Your task to perform on an android device: empty trash in the gmail app Image 0: 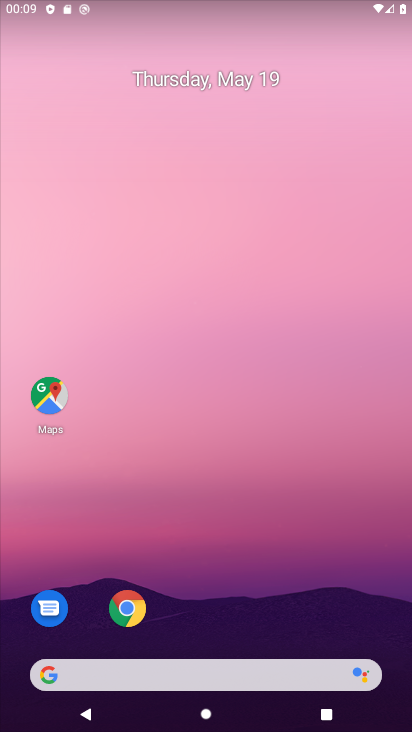
Step 0: drag from (266, 675) to (336, 103)
Your task to perform on an android device: empty trash in the gmail app Image 1: 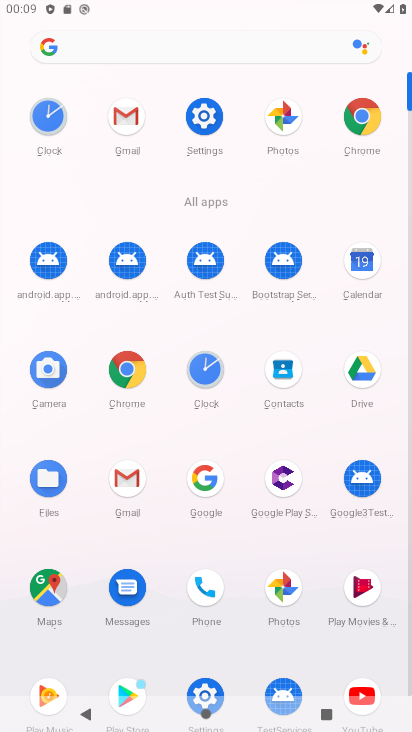
Step 1: click (127, 482)
Your task to perform on an android device: empty trash in the gmail app Image 2: 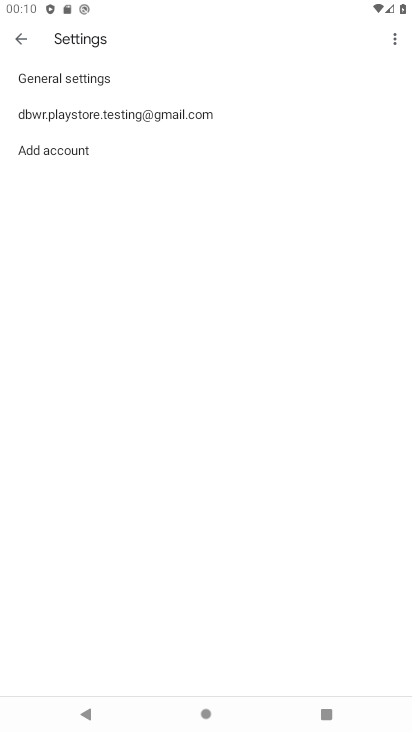
Step 2: click (120, 100)
Your task to perform on an android device: empty trash in the gmail app Image 3: 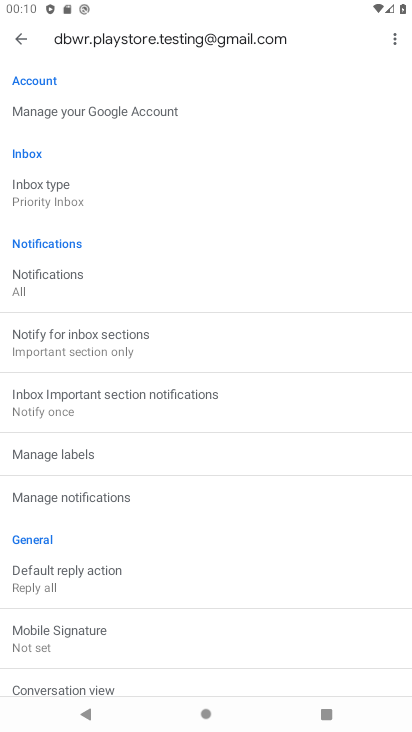
Step 3: click (23, 40)
Your task to perform on an android device: empty trash in the gmail app Image 4: 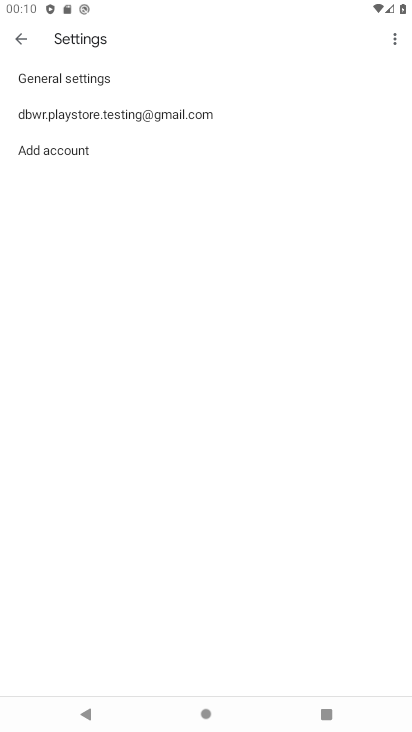
Step 4: click (22, 40)
Your task to perform on an android device: empty trash in the gmail app Image 5: 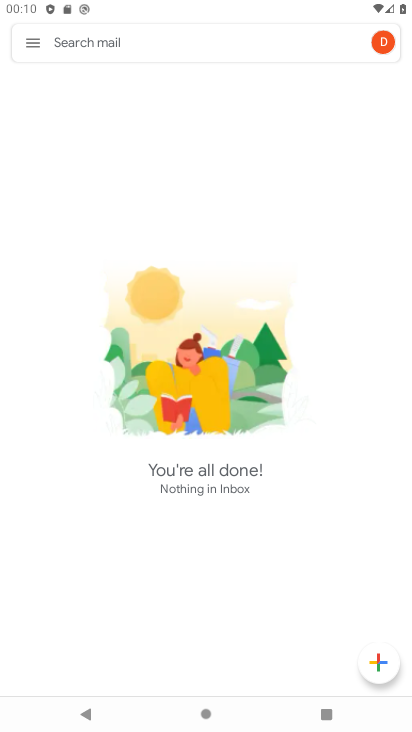
Step 5: click (22, 40)
Your task to perform on an android device: empty trash in the gmail app Image 6: 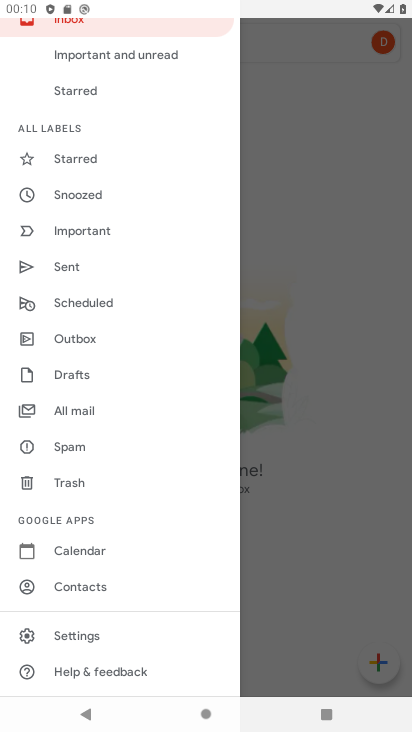
Step 6: click (92, 483)
Your task to perform on an android device: empty trash in the gmail app Image 7: 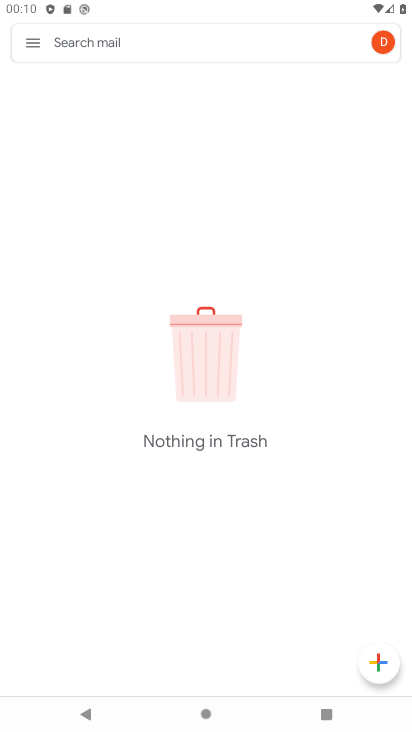
Step 7: task complete